Your task to perform on an android device: Open sound settings Image 0: 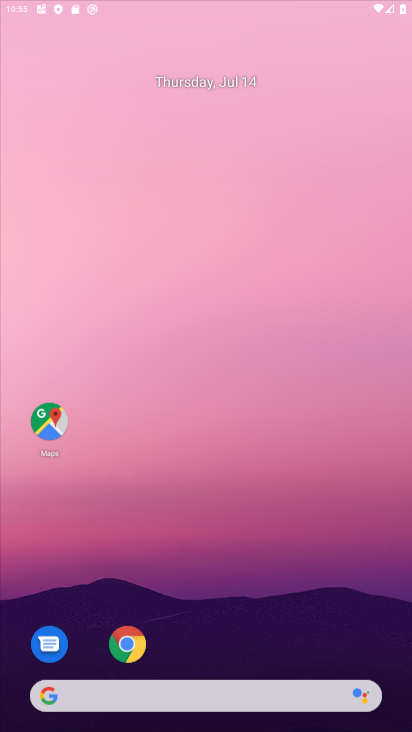
Step 0: click (152, 27)
Your task to perform on an android device: Open sound settings Image 1: 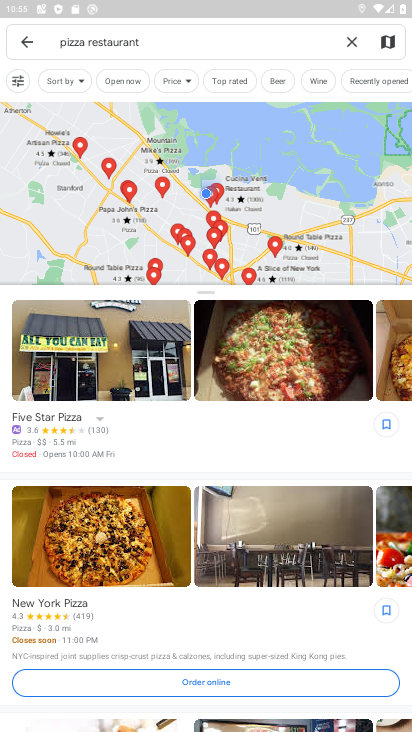
Step 1: press home button
Your task to perform on an android device: Open sound settings Image 2: 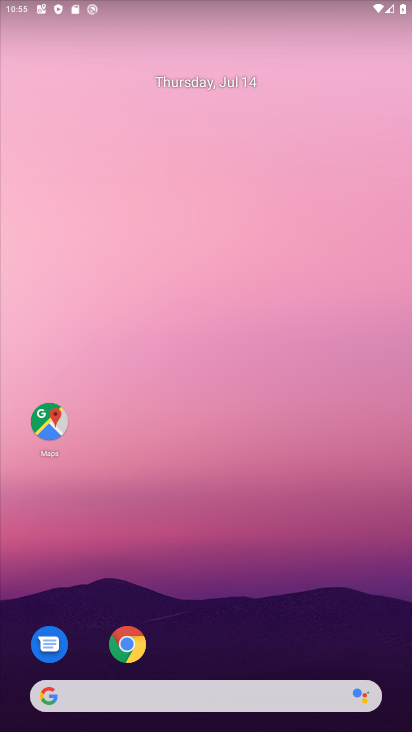
Step 2: drag from (188, 687) to (127, 188)
Your task to perform on an android device: Open sound settings Image 3: 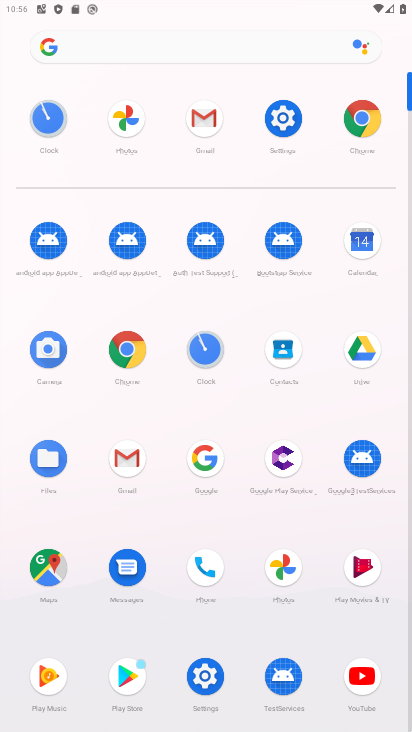
Step 3: click (209, 667)
Your task to perform on an android device: Open sound settings Image 4: 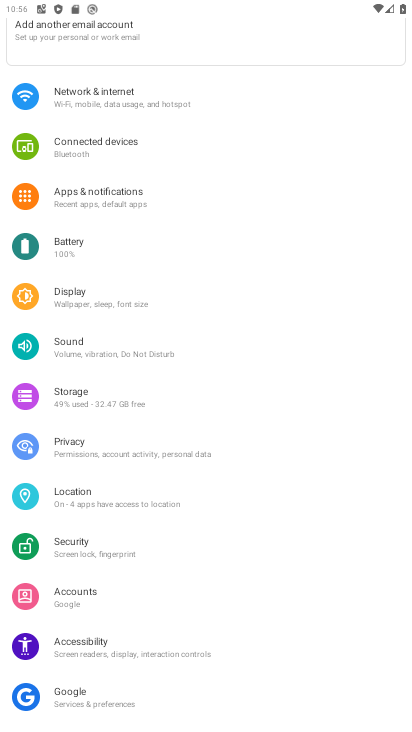
Step 4: click (85, 342)
Your task to perform on an android device: Open sound settings Image 5: 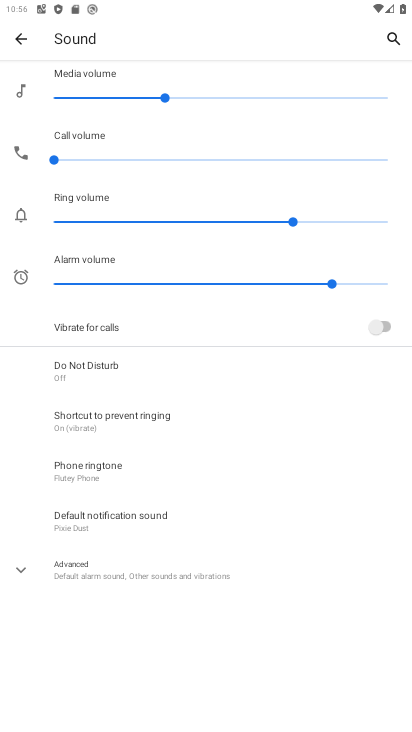
Step 5: task complete